Your task to perform on an android device: turn on showing notifications on the lock screen Image 0: 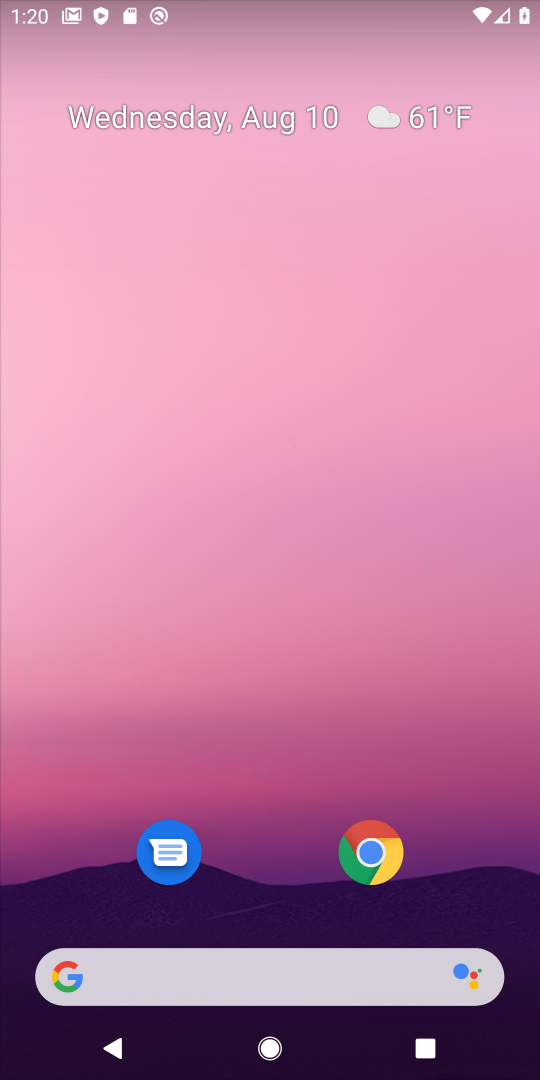
Step 0: drag from (286, 780) to (425, 73)
Your task to perform on an android device: turn on showing notifications on the lock screen Image 1: 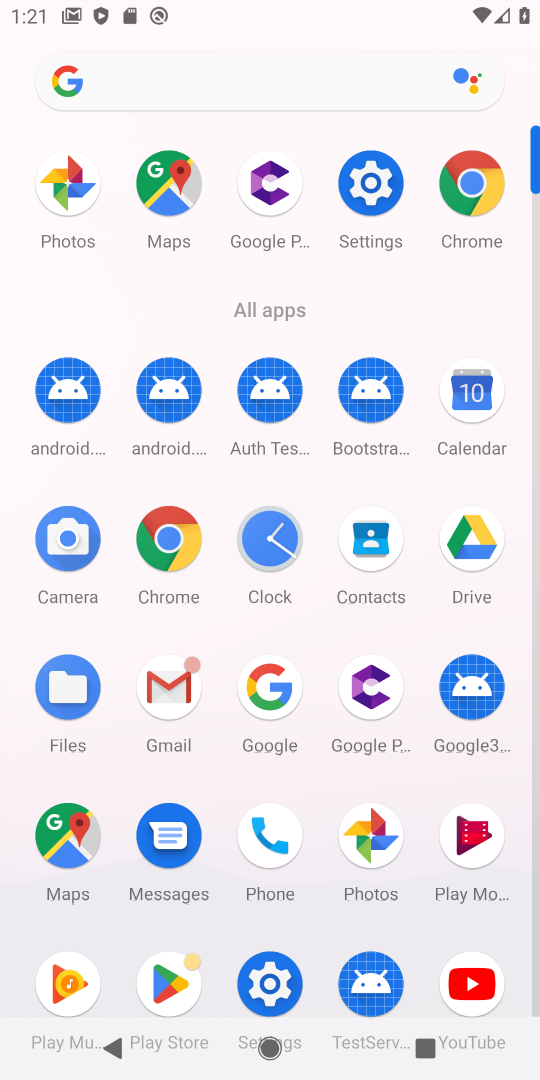
Step 1: drag from (432, 907) to (441, 113)
Your task to perform on an android device: turn on showing notifications on the lock screen Image 2: 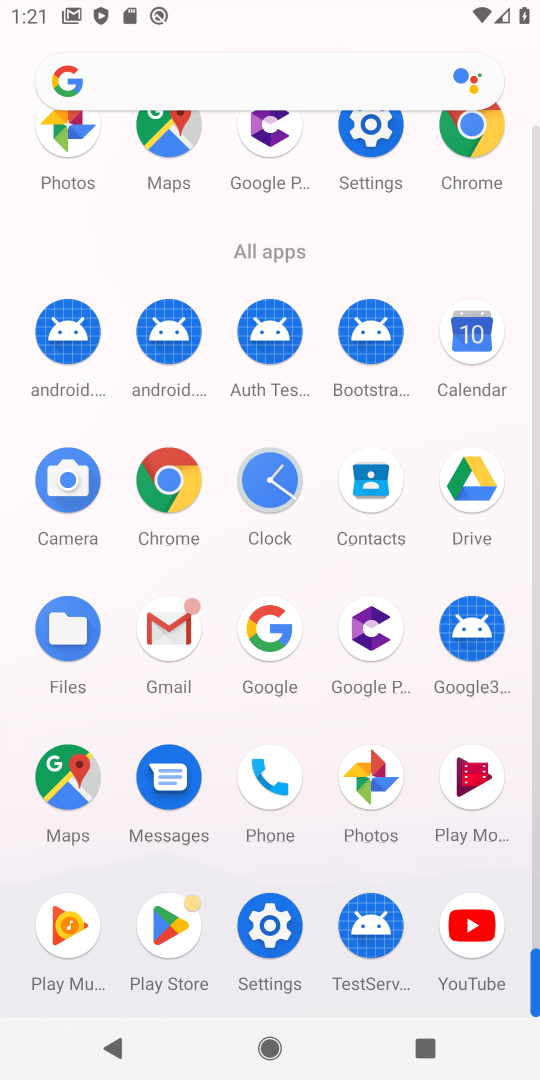
Step 2: click (266, 929)
Your task to perform on an android device: turn on showing notifications on the lock screen Image 3: 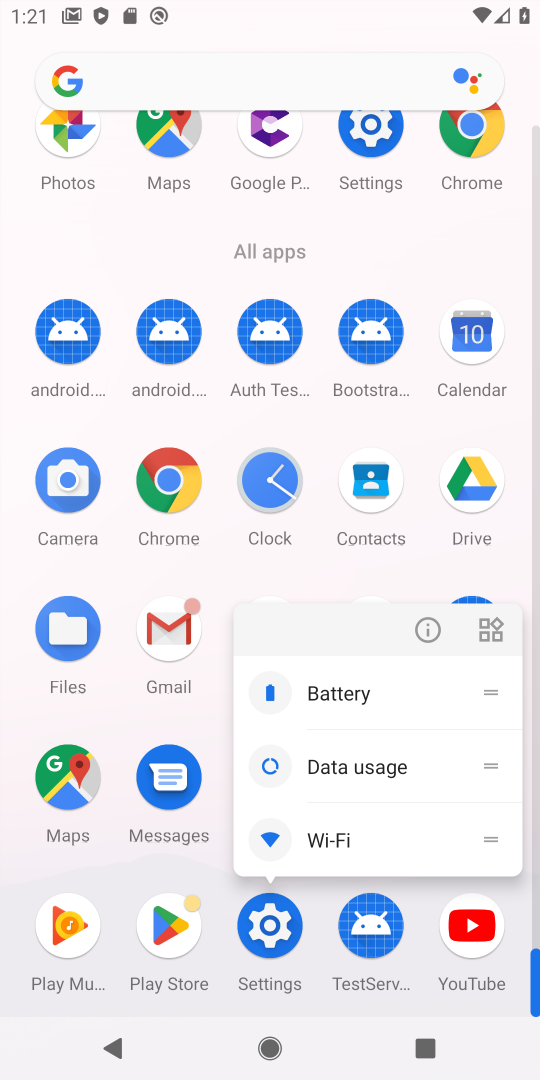
Step 3: click (267, 921)
Your task to perform on an android device: turn on showing notifications on the lock screen Image 4: 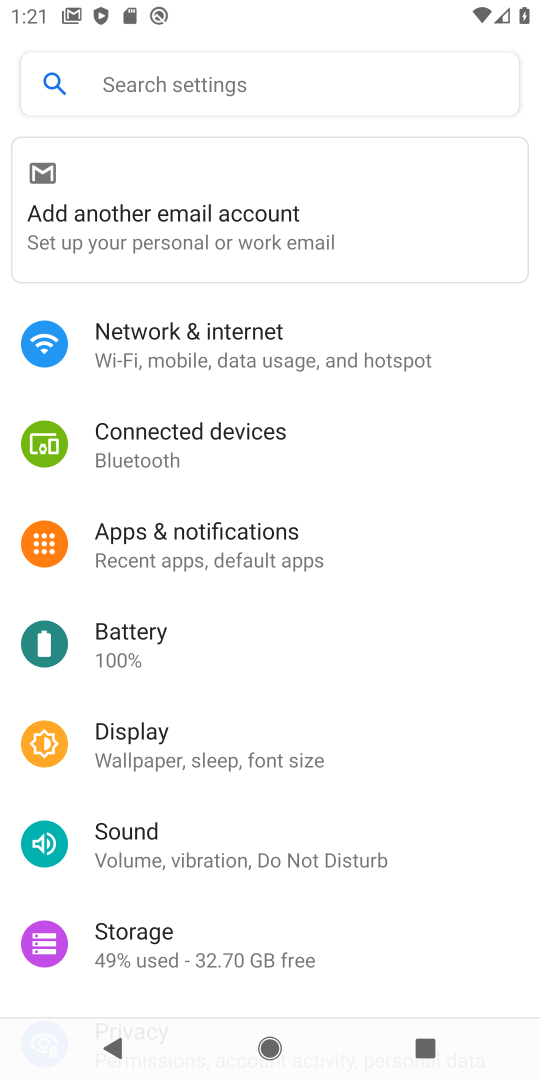
Step 4: click (238, 561)
Your task to perform on an android device: turn on showing notifications on the lock screen Image 5: 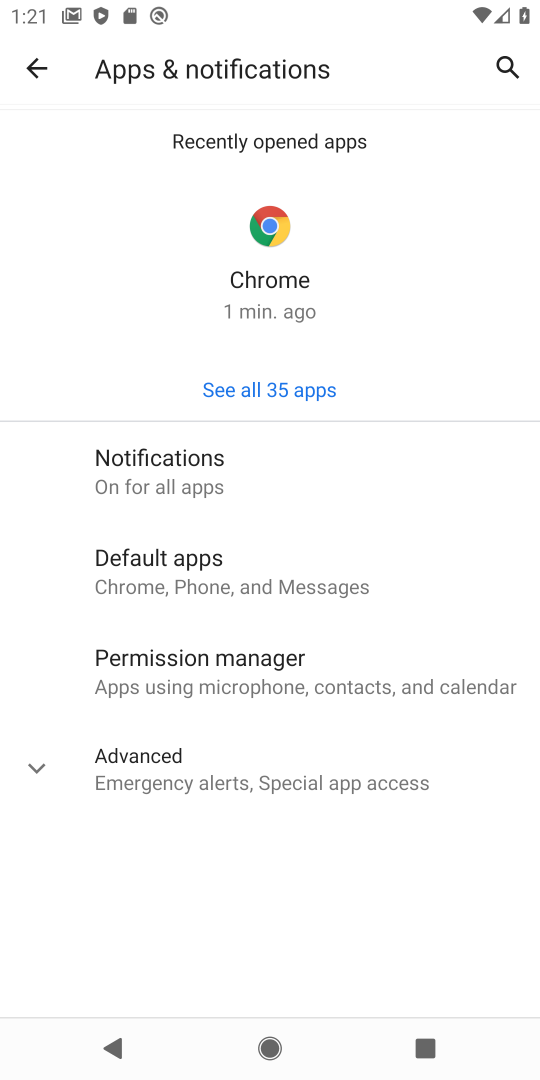
Step 5: click (221, 486)
Your task to perform on an android device: turn on showing notifications on the lock screen Image 6: 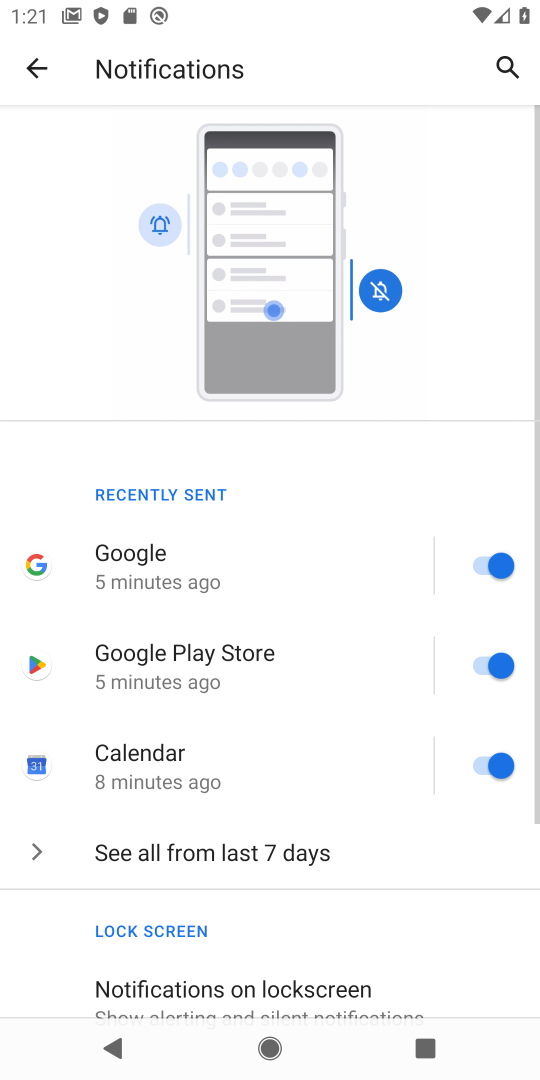
Step 6: drag from (296, 926) to (355, 297)
Your task to perform on an android device: turn on showing notifications on the lock screen Image 7: 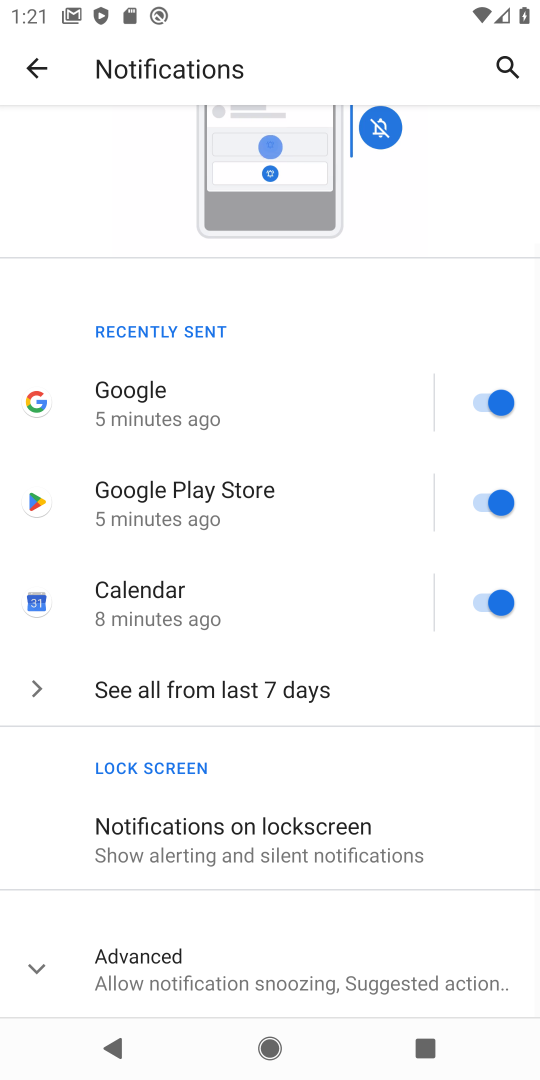
Step 7: click (263, 838)
Your task to perform on an android device: turn on showing notifications on the lock screen Image 8: 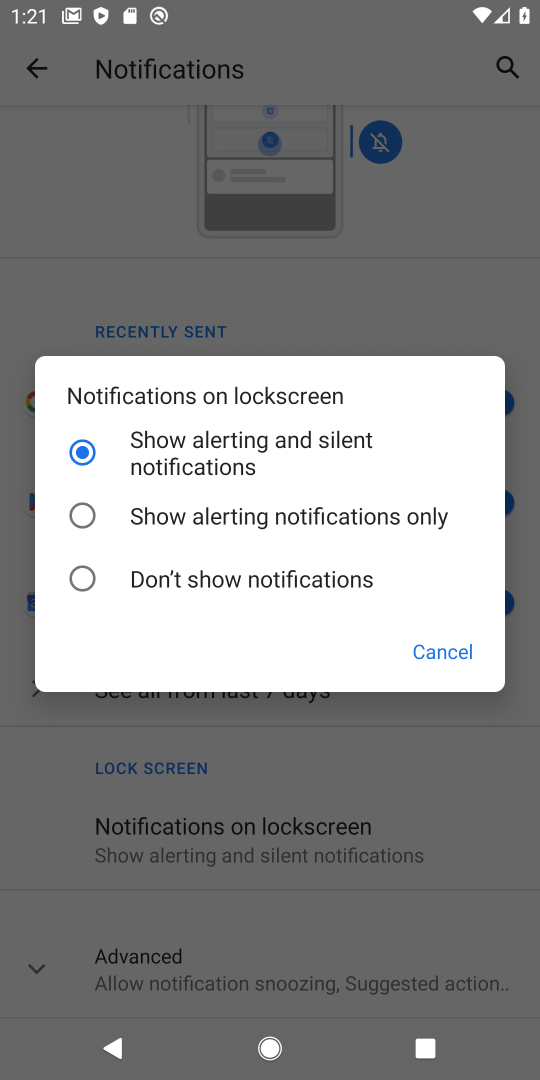
Step 8: click (263, 524)
Your task to perform on an android device: turn on showing notifications on the lock screen Image 9: 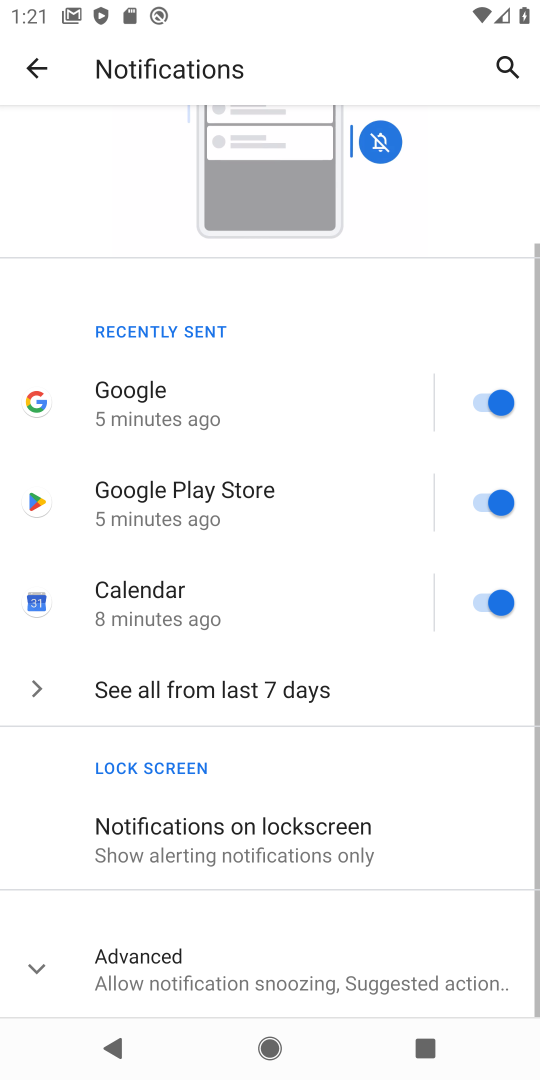
Step 9: task complete